Your task to perform on an android device: Set the phone to "Do not disturb". Image 0: 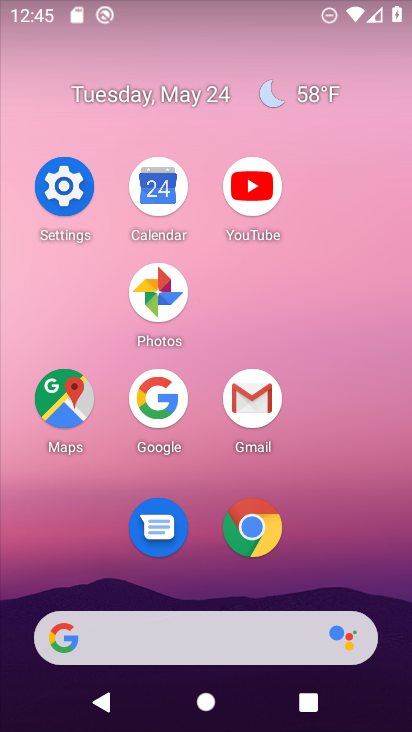
Step 0: click (69, 177)
Your task to perform on an android device: Set the phone to "Do not disturb". Image 1: 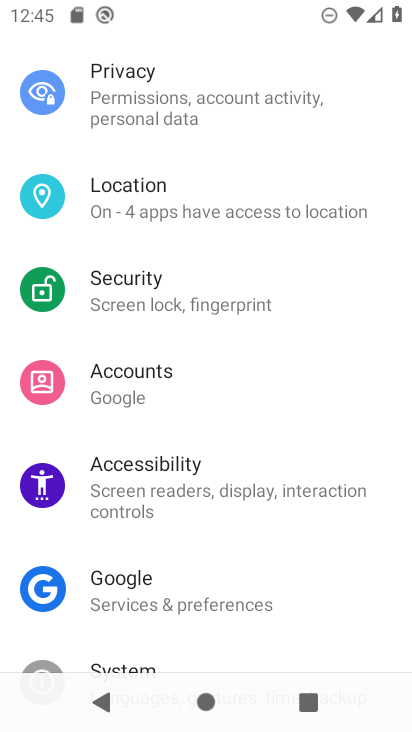
Step 1: drag from (228, 228) to (330, 614)
Your task to perform on an android device: Set the phone to "Do not disturb". Image 2: 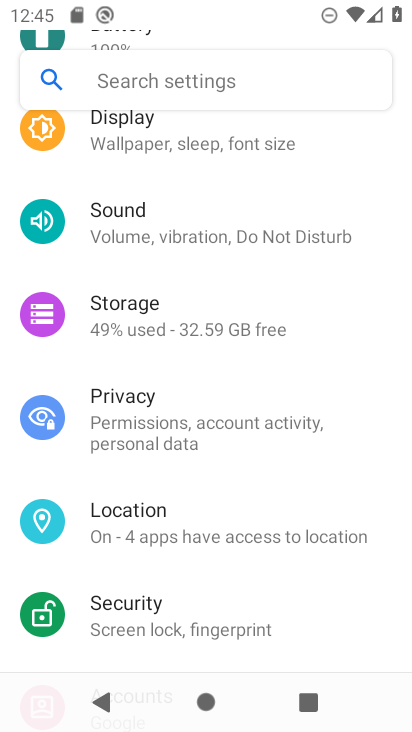
Step 2: click (238, 227)
Your task to perform on an android device: Set the phone to "Do not disturb". Image 3: 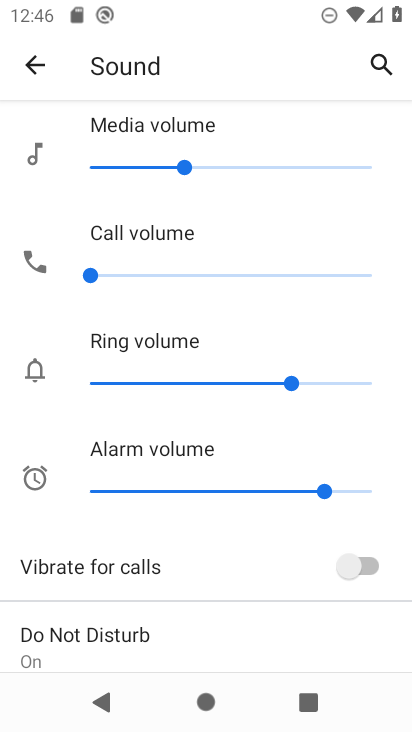
Step 3: task complete